Your task to perform on an android device: turn on translation in the chrome app Image 0: 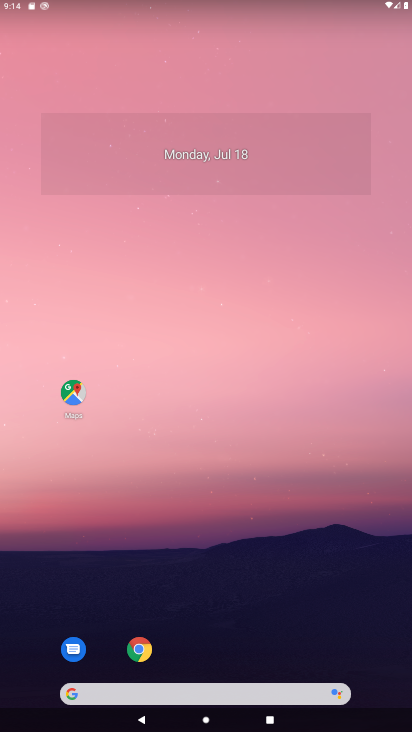
Step 0: click (324, 525)
Your task to perform on an android device: turn on translation in the chrome app Image 1: 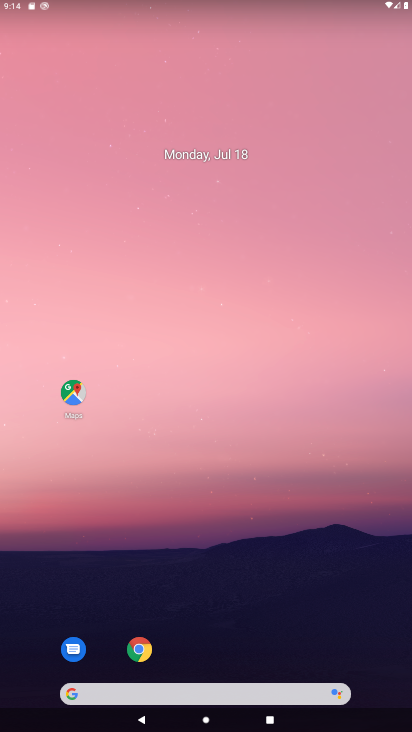
Step 1: drag from (278, 648) to (298, 220)
Your task to perform on an android device: turn on translation in the chrome app Image 2: 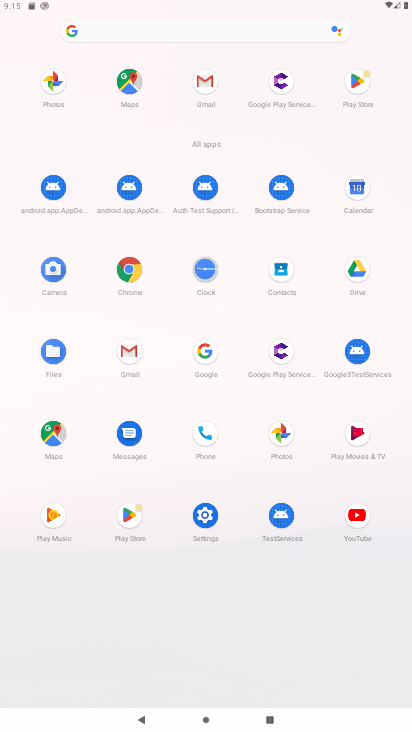
Step 2: click (126, 274)
Your task to perform on an android device: turn on translation in the chrome app Image 3: 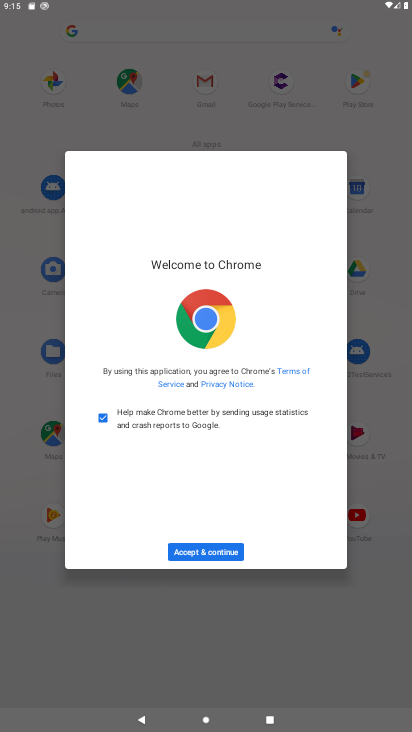
Step 3: click (167, 565)
Your task to perform on an android device: turn on translation in the chrome app Image 4: 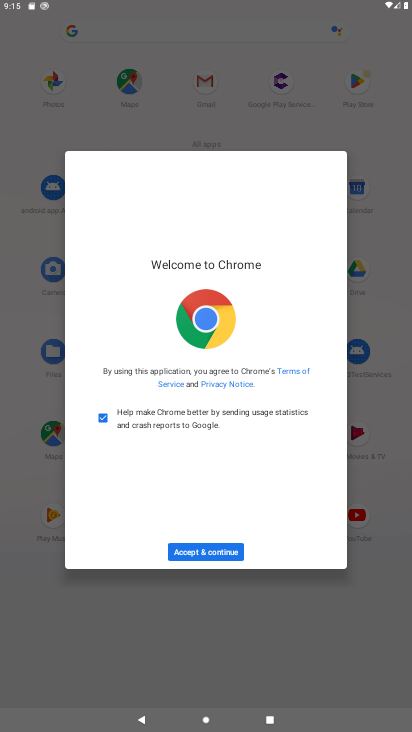
Step 4: click (189, 548)
Your task to perform on an android device: turn on translation in the chrome app Image 5: 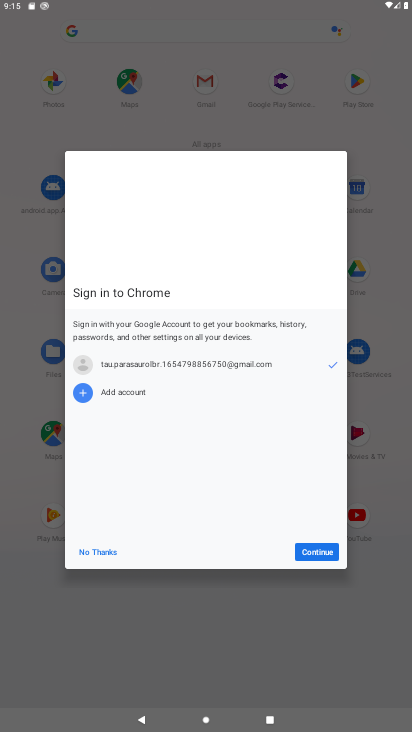
Step 5: click (95, 540)
Your task to perform on an android device: turn on translation in the chrome app Image 6: 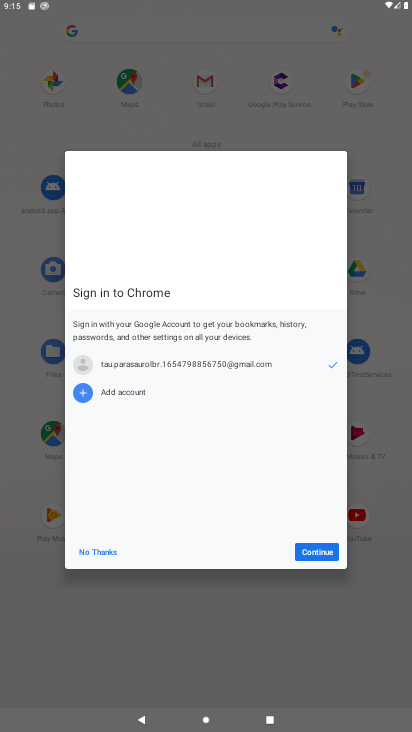
Step 6: click (103, 554)
Your task to perform on an android device: turn on translation in the chrome app Image 7: 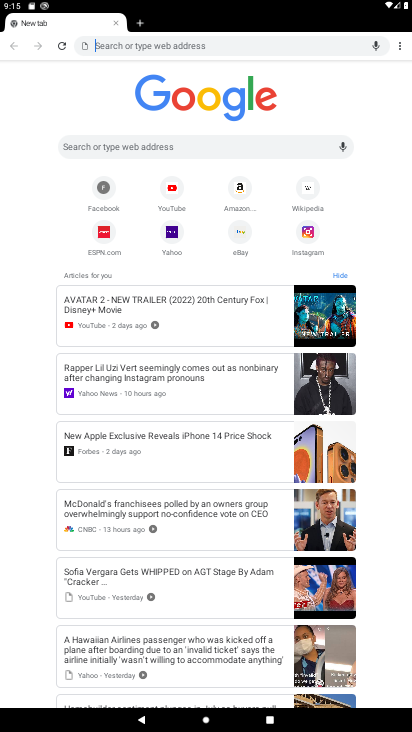
Step 7: drag from (393, 46) to (303, 217)
Your task to perform on an android device: turn on translation in the chrome app Image 8: 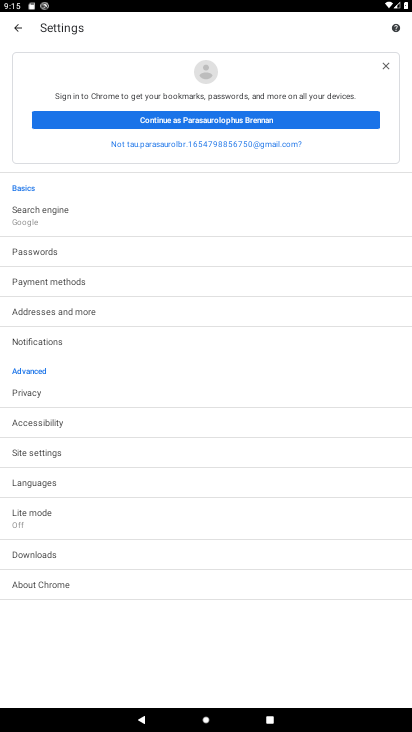
Step 8: click (72, 480)
Your task to perform on an android device: turn on translation in the chrome app Image 9: 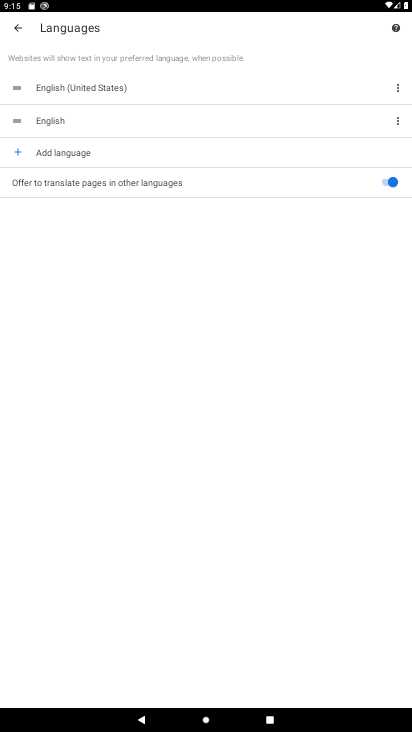
Step 9: task complete